Your task to perform on an android device: Go to location settings Image 0: 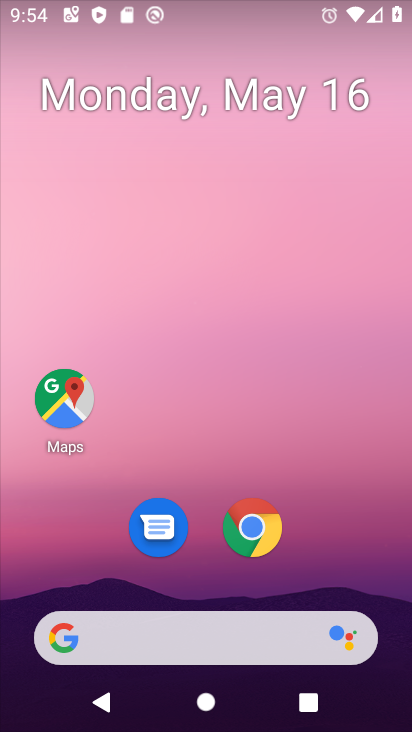
Step 0: drag from (350, 599) to (300, 6)
Your task to perform on an android device: Go to location settings Image 1: 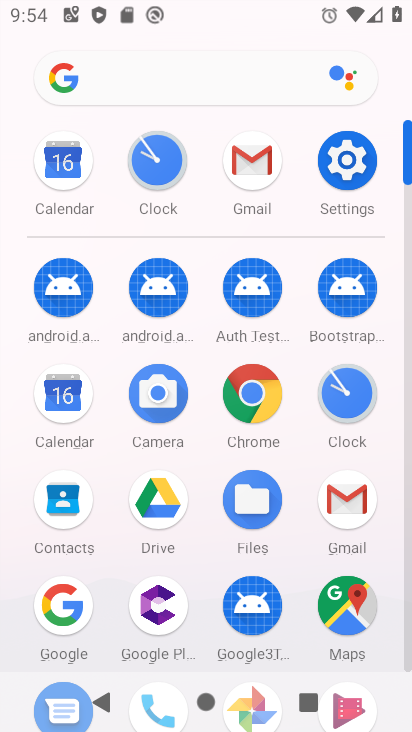
Step 1: click (347, 170)
Your task to perform on an android device: Go to location settings Image 2: 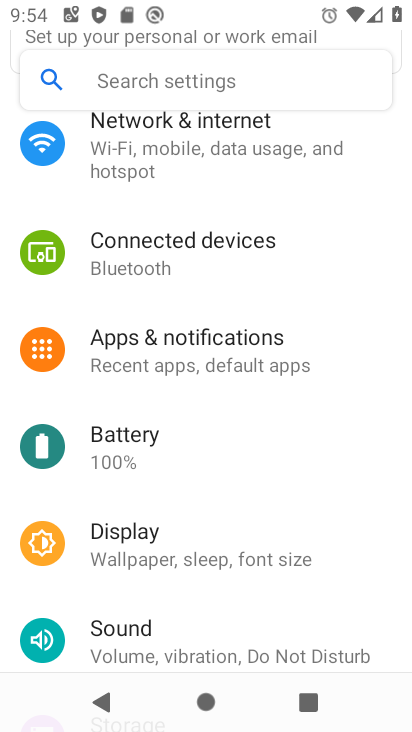
Step 2: drag from (304, 519) to (302, 168)
Your task to perform on an android device: Go to location settings Image 3: 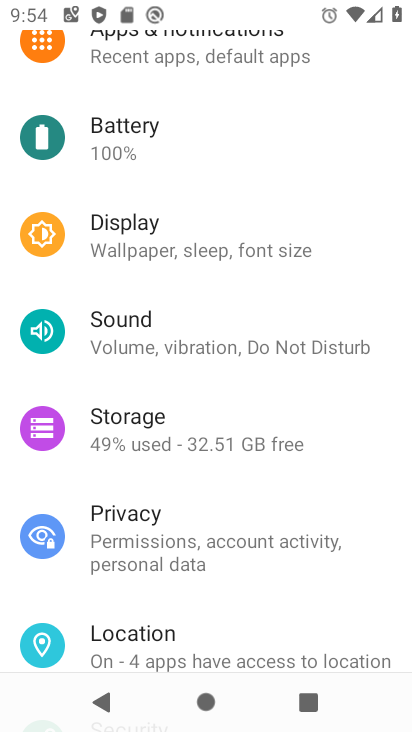
Step 3: drag from (261, 537) to (244, 278)
Your task to perform on an android device: Go to location settings Image 4: 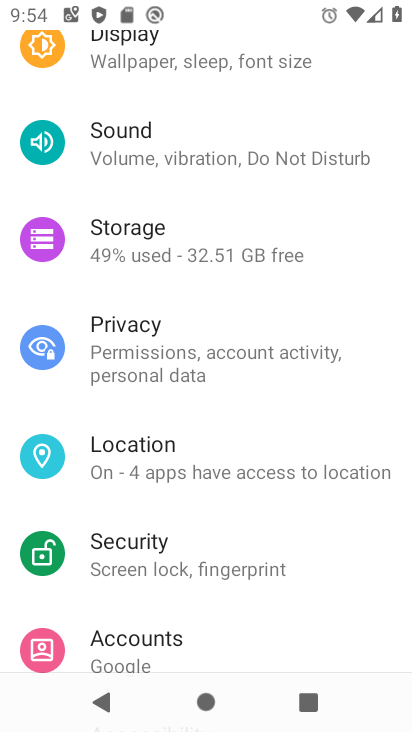
Step 4: click (133, 467)
Your task to perform on an android device: Go to location settings Image 5: 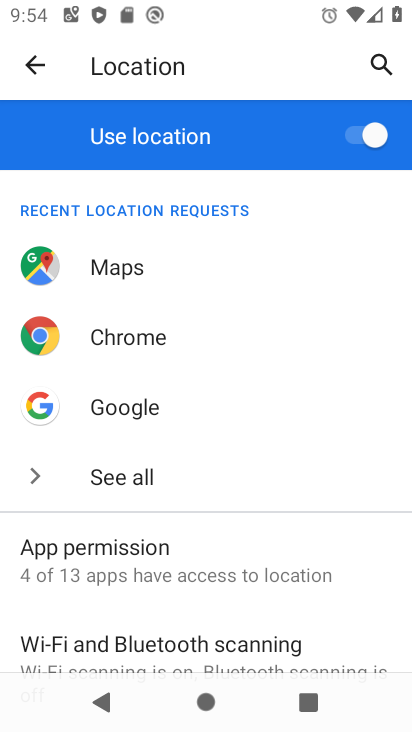
Step 5: task complete